Your task to perform on an android device: toggle airplane mode Image 0: 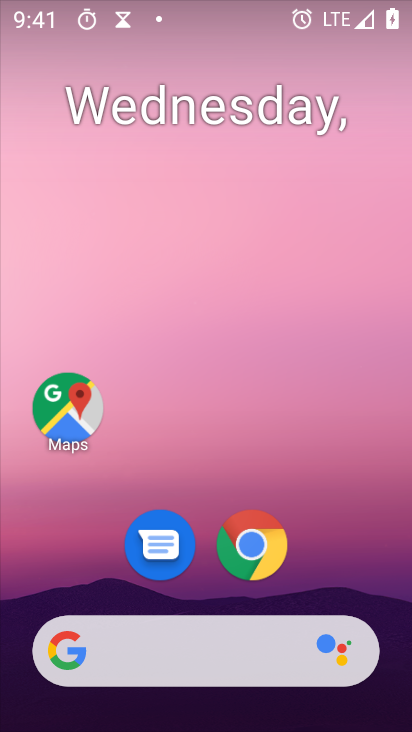
Step 0: drag from (181, 638) to (324, 34)
Your task to perform on an android device: toggle airplane mode Image 1: 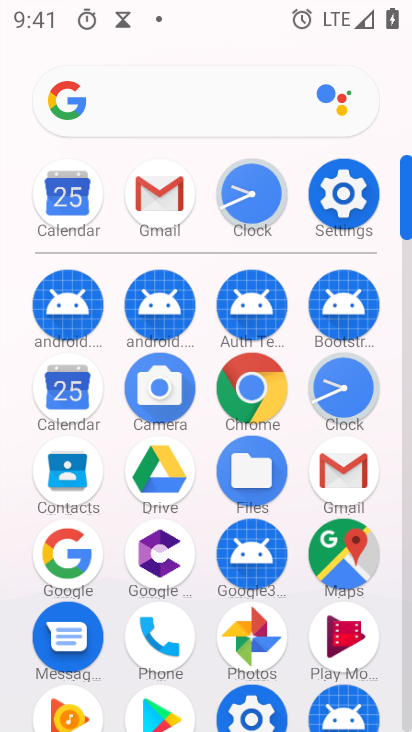
Step 1: click (350, 194)
Your task to perform on an android device: toggle airplane mode Image 2: 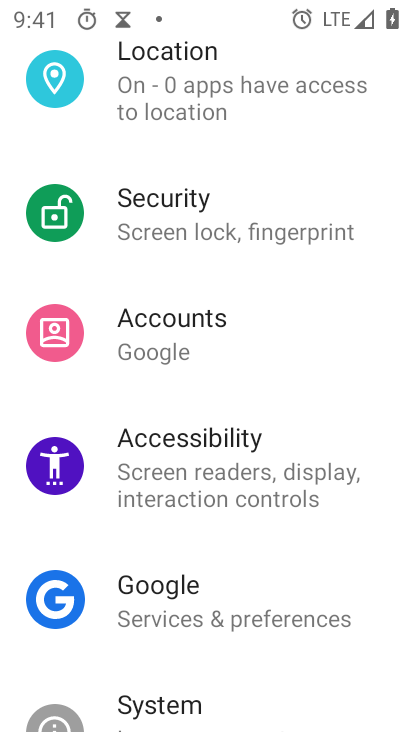
Step 2: drag from (281, 146) to (219, 550)
Your task to perform on an android device: toggle airplane mode Image 3: 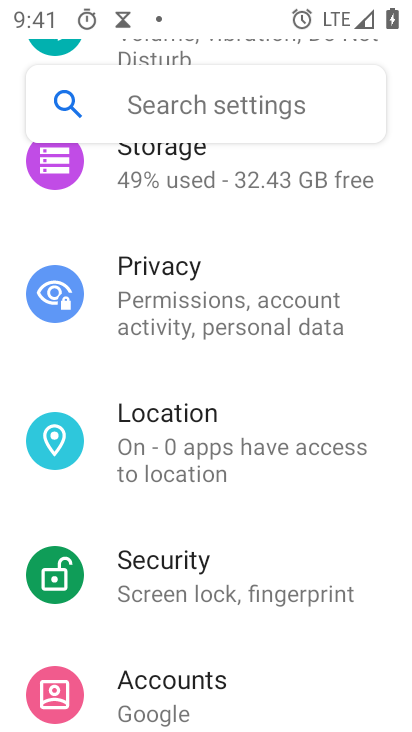
Step 3: drag from (280, 231) to (265, 593)
Your task to perform on an android device: toggle airplane mode Image 4: 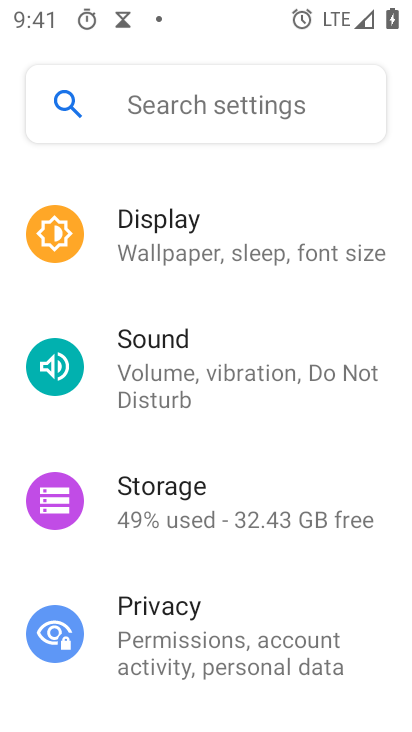
Step 4: drag from (299, 194) to (267, 591)
Your task to perform on an android device: toggle airplane mode Image 5: 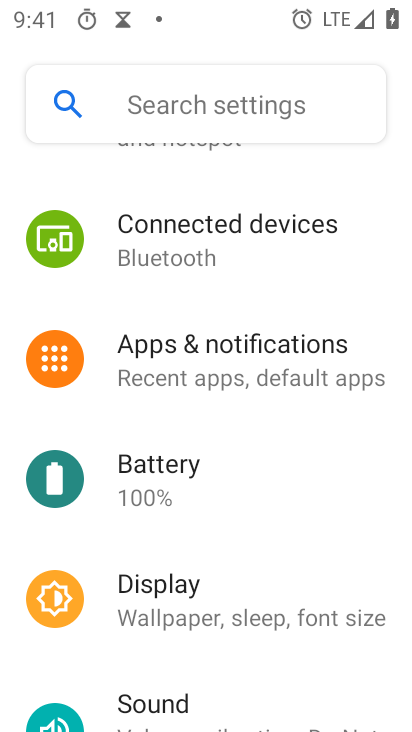
Step 5: drag from (327, 186) to (310, 605)
Your task to perform on an android device: toggle airplane mode Image 6: 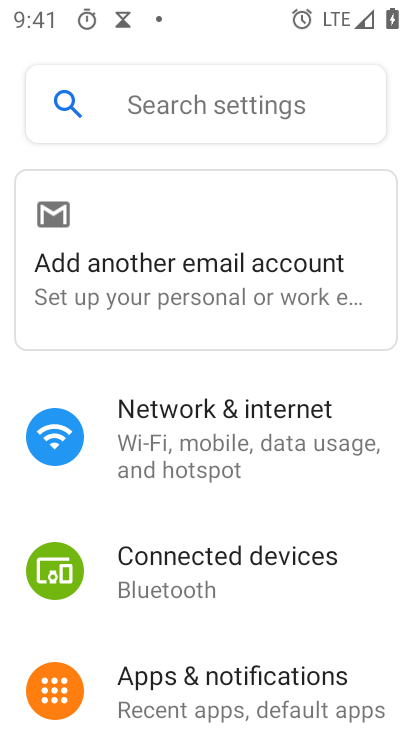
Step 6: click (245, 424)
Your task to perform on an android device: toggle airplane mode Image 7: 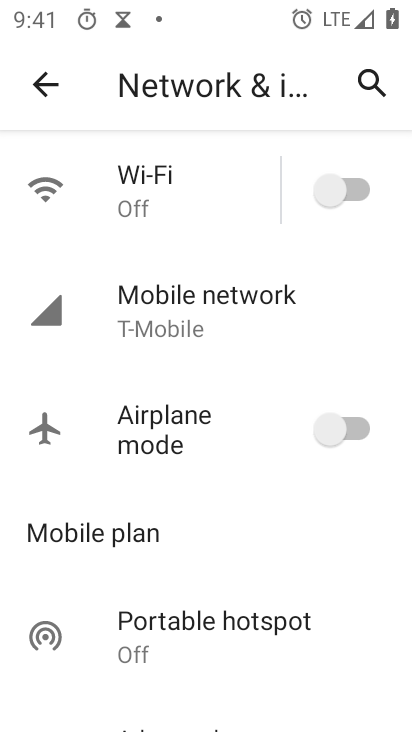
Step 7: click (359, 428)
Your task to perform on an android device: toggle airplane mode Image 8: 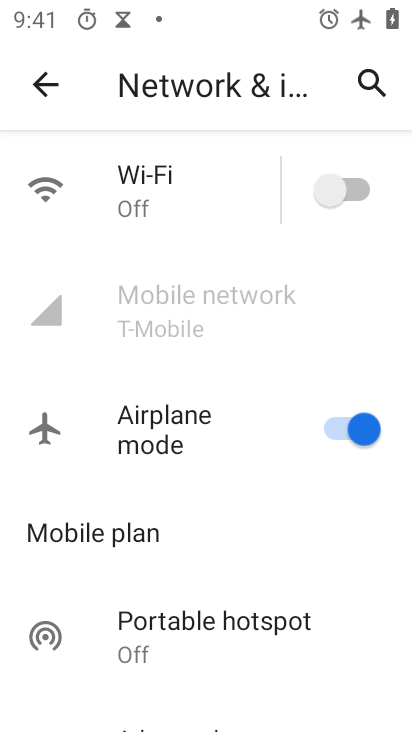
Step 8: task complete